Your task to perform on an android device: Open Google Maps Image 0: 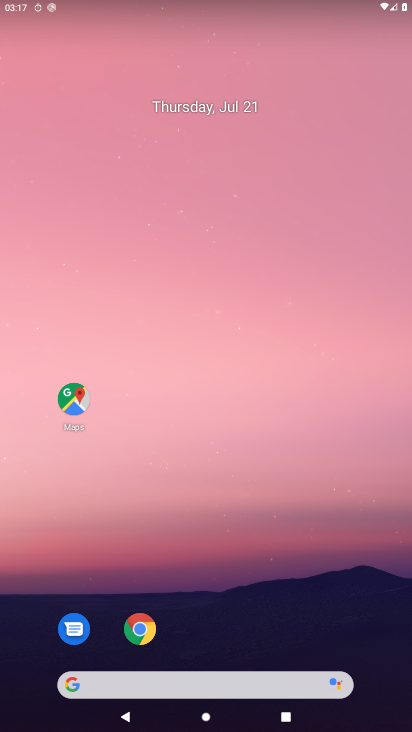
Step 0: click (65, 406)
Your task to perform on an android device: Open Google Maps Image 1: 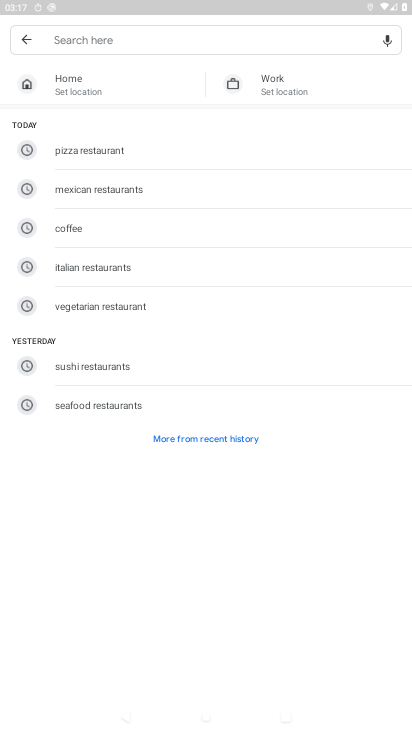
Step 1: click (31, 44)
Your task to perform on an android device: Open Google Maps Image 2: 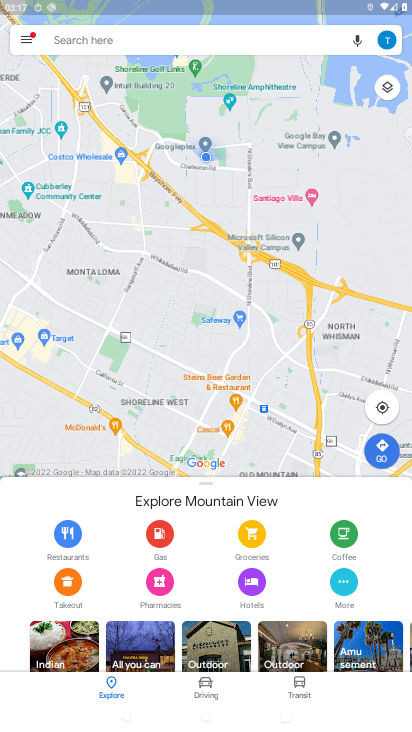
Step 2: task complete